Your task to perform on an android device: Show me productivity apps on the Play Store Image 0: 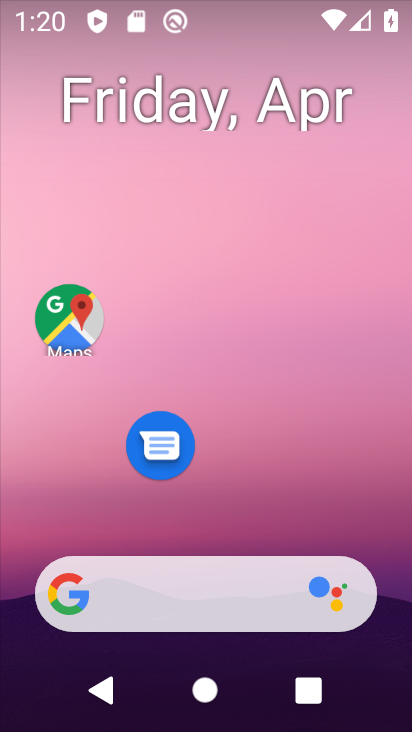
Step 0: drag from (264, 517) to (229, 134)
Your task to perform on an android device: Show me productivity apps on the Play Store Image 1: 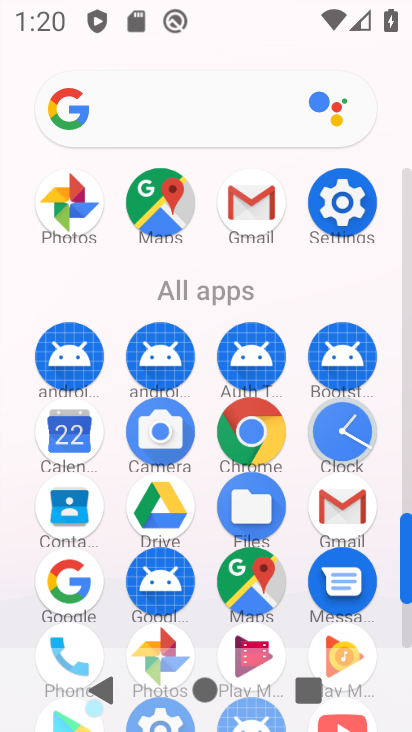
Step 1: drag from (197, 599) to (195, 269)
Your task to perform on an android device: Show me productivity apps on the Play Store Image 2: 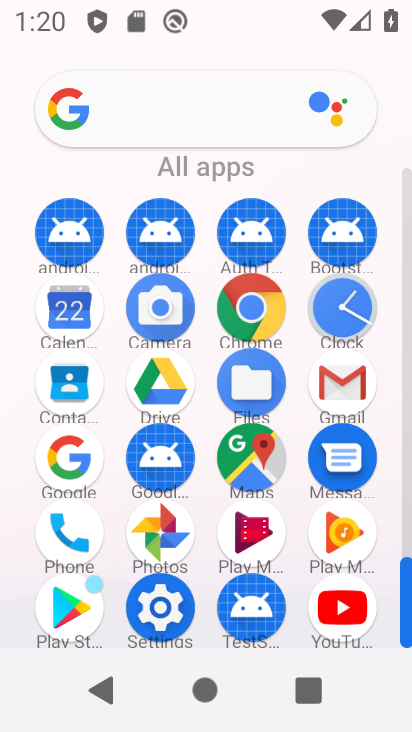
Step 2: click (61, 602)
Your task to perform on an android device: Show me productivity apps on the Play Store Image 3: 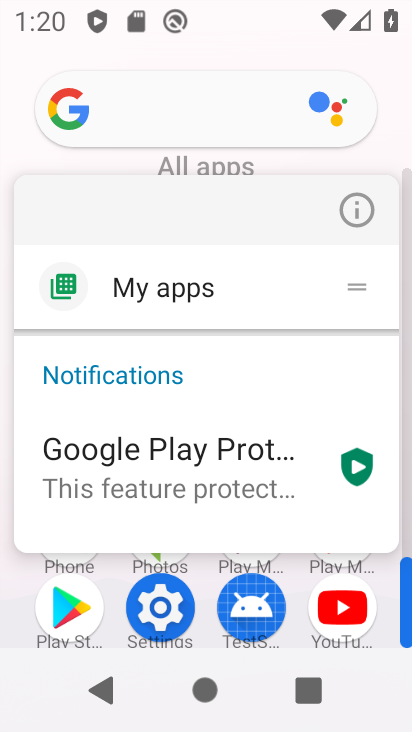
Step 3: click (66, 599)
Your task to perform on an android device: Show me productivity apps on the Play Store Image 4: 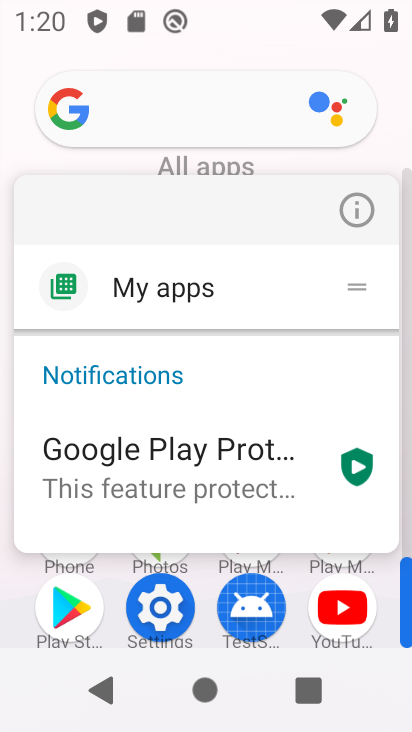
Step 4: click (66, 599)
Your task to perform on an android device: Show me productivity apps on the Play Store Image 5: 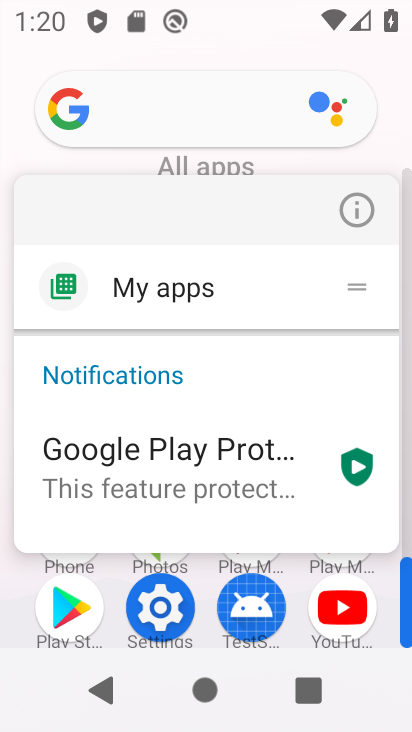
Step 5: click (66, 599)
Your task to perform on an android device: Show me productivity apps on the Play Store Image 6: 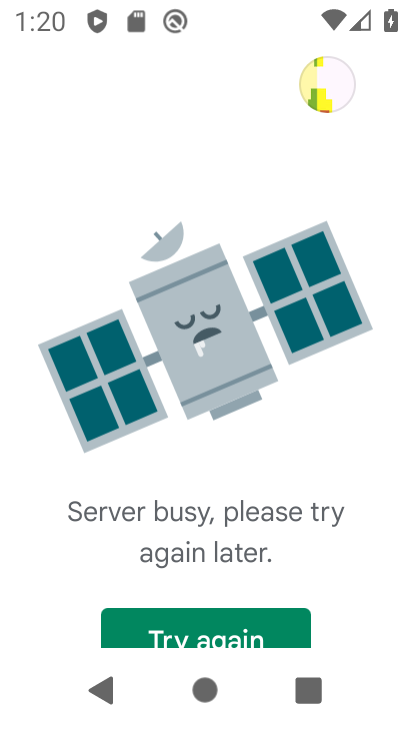
Step 6: click (179, 628)
Your task to perform on an android device: Show me productivity apps on the Play Store Image 7: 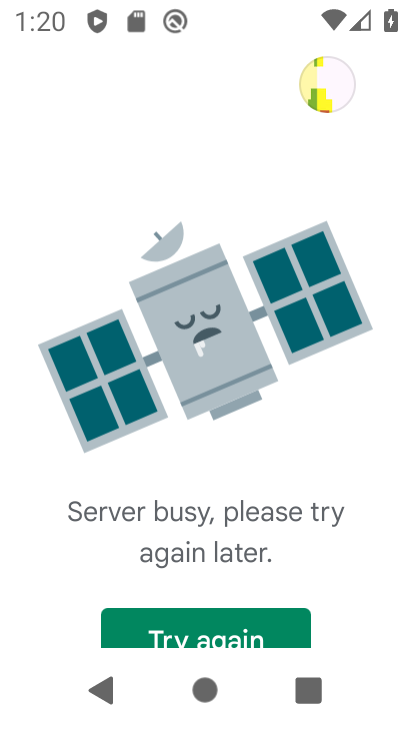
Step 7: click (181, 625)
Your task to perform on an android device: Show me productivity apps on the Play Store Image 8: 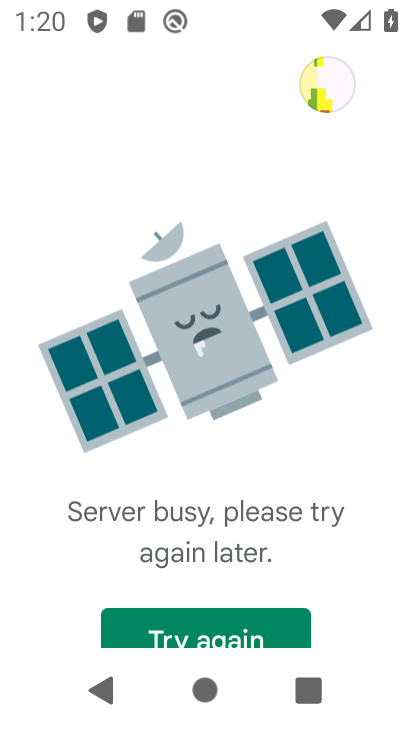
Step 8: click (181, 625)
Your task to perform on an android device: Show me productivity apps on the Play Store Image 9: 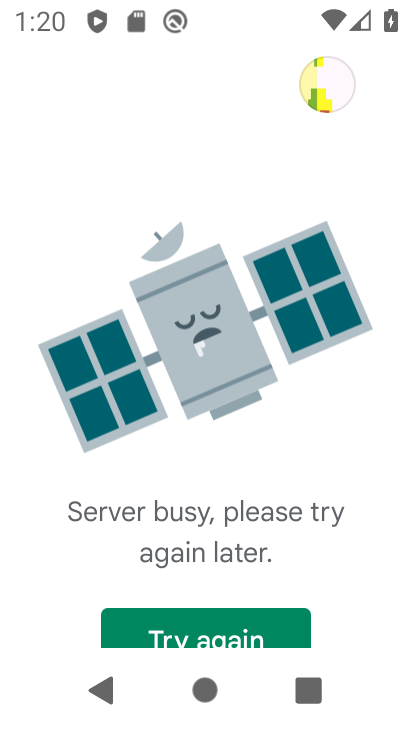
Step 9: click (181, 625)
Your task to perform on an android device: Show me productivity apps on the Play Store Image 10: 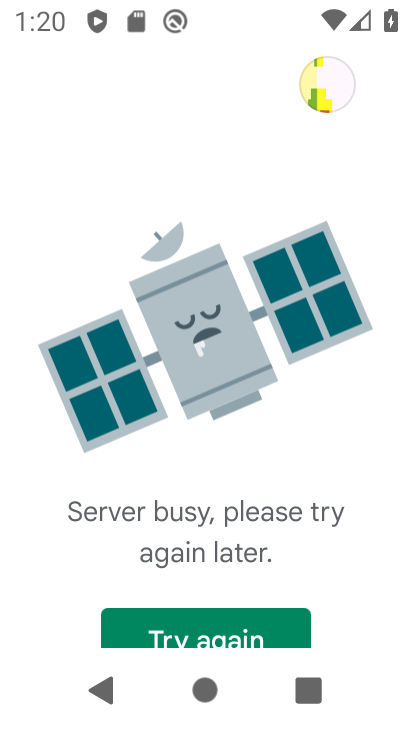
Step 10: click (182, 625)
Your task to perform on an android device: Show me productivity apps on the Play Store Image 11: 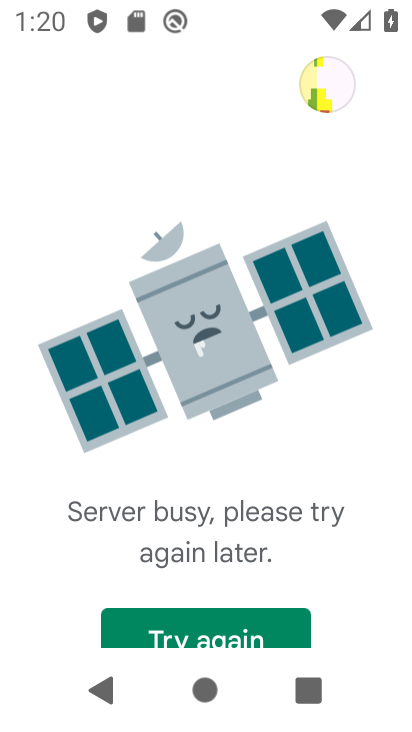
Step 11: click (182, 625)
Your task to perform on an android device: Show me productivity apps on the Play Store Image 12: 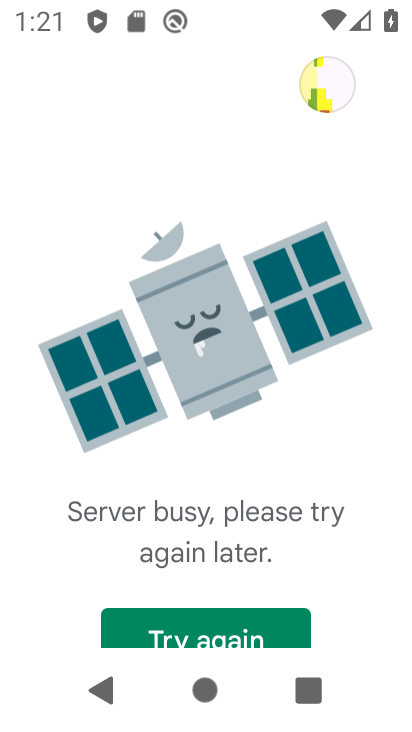
Step 12: click (184, 618)
Your task to perform on an android device: Show me productivity apps on the Play Store Image 13: 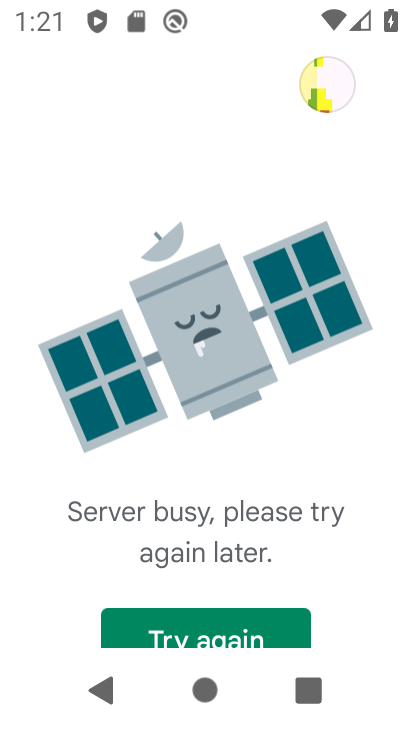
Step 13: click (184, 618)
Your task to perform on an android device: Show me productivity apps on the Play Store Image 14: 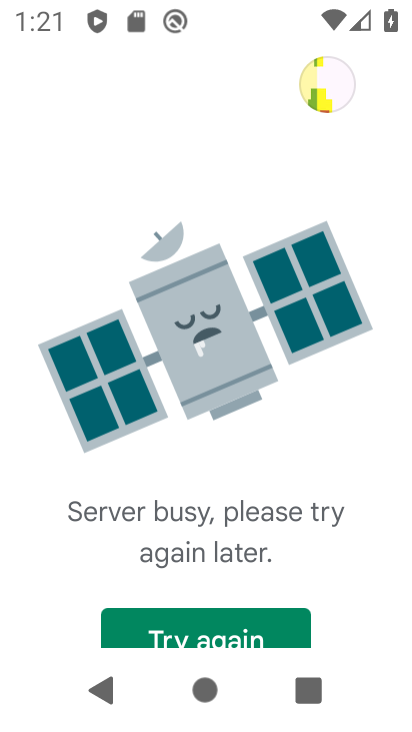
Step 14: click (184, 615)
Your task to perform on an android device: Show me productivity apps on the Play Store Image 15: 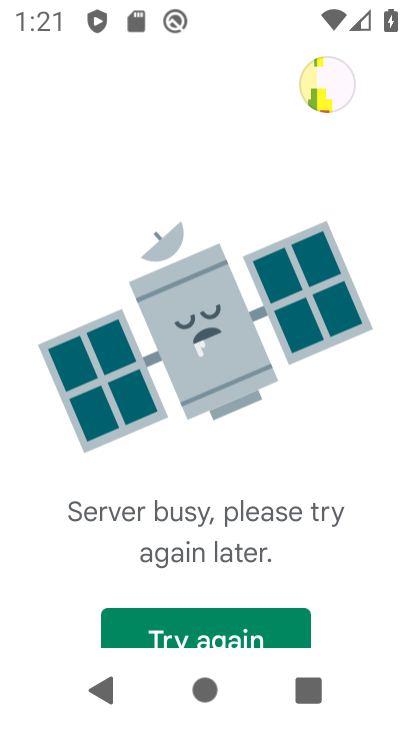
Step 15: click (184, 614)
Your task to perform on an android device: Show me productivity apps on the Play Store Image 16: 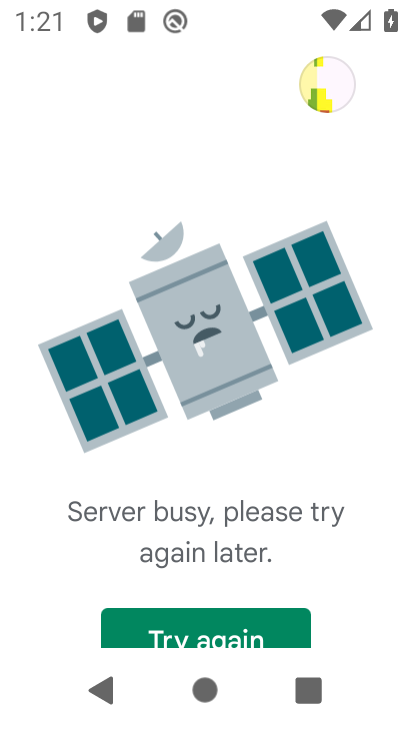
Step 16: task complete